Your task to perform on an android device: install app "Venmo" Image 0: 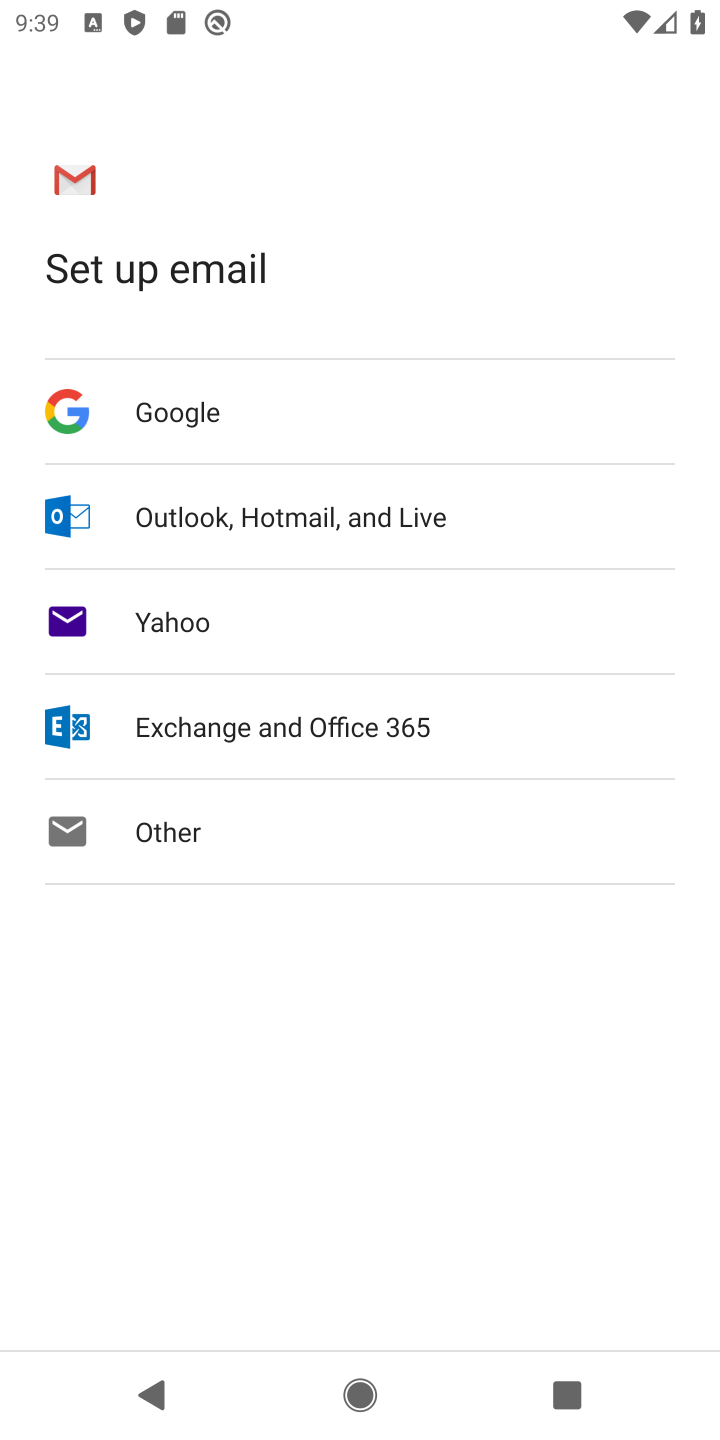
Step 0: press home button
Your task to perform on an android device: install app "Venmo" Image 1: 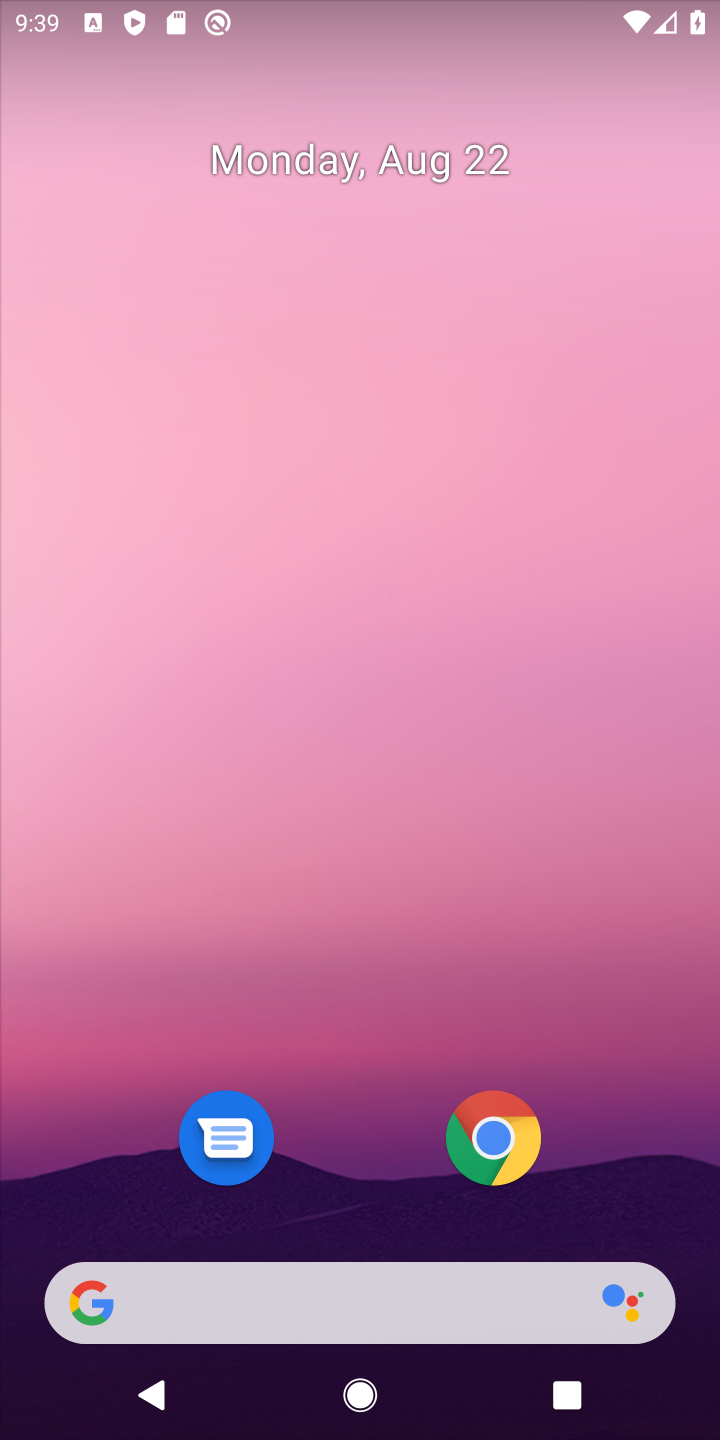
Step 1: drag from (345, 935) to (384, 249)
Your task to perform on an android device: install app "Venmo" Image 2: 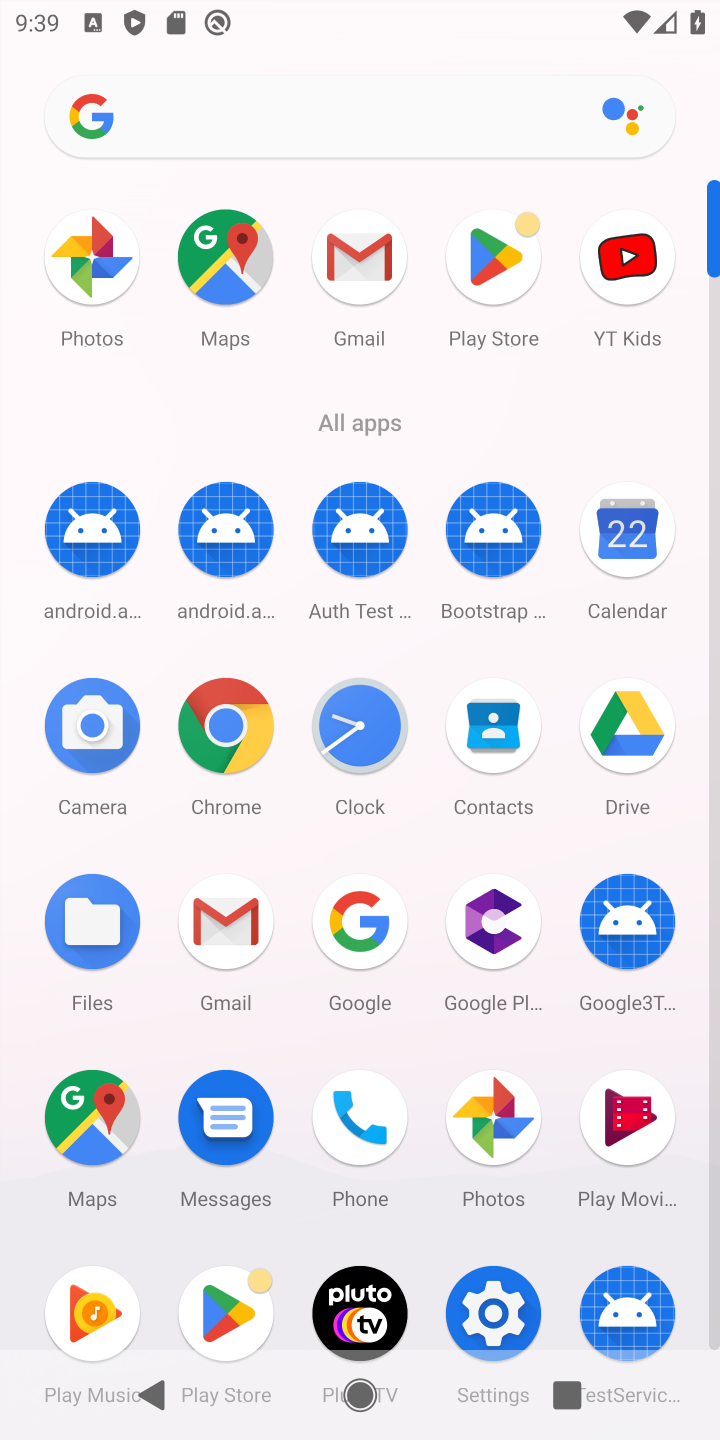
Step 2: click (536, 243)
Your task to perform on an android device: install app "Venmo" Image 3: 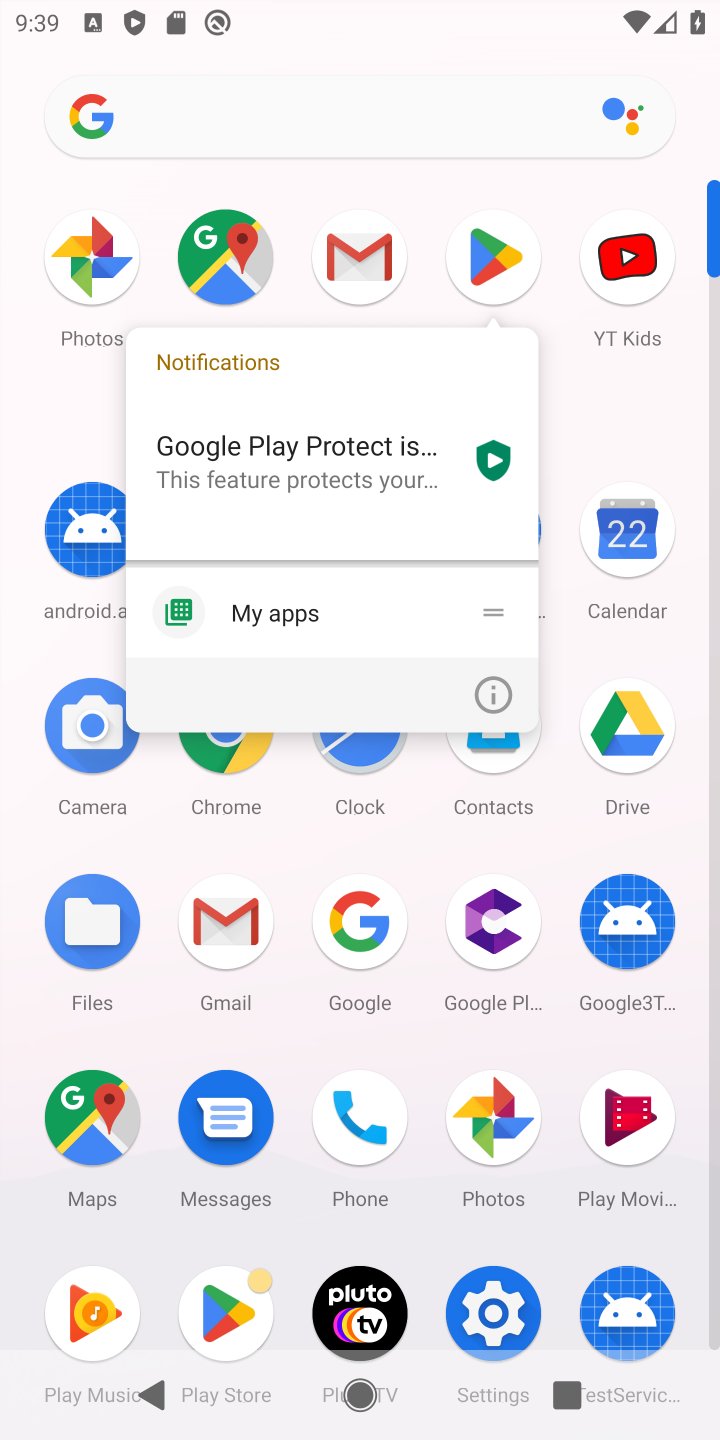
Step 3: click (490, 241)
Your task to perform on an android device: install app "Venmo" Image 4: 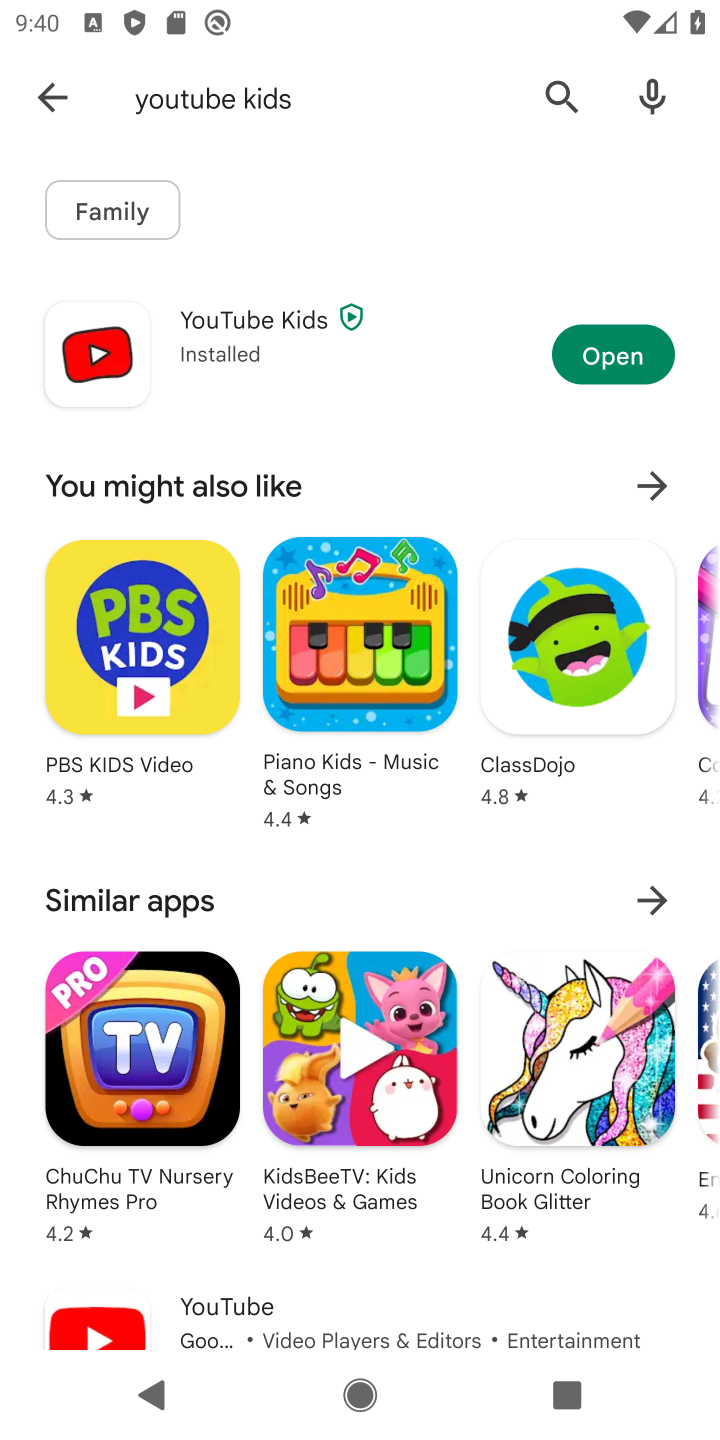
Step 4: click (576, 99)
Your task to perform on an android device: install app "Venmo" Image 5: 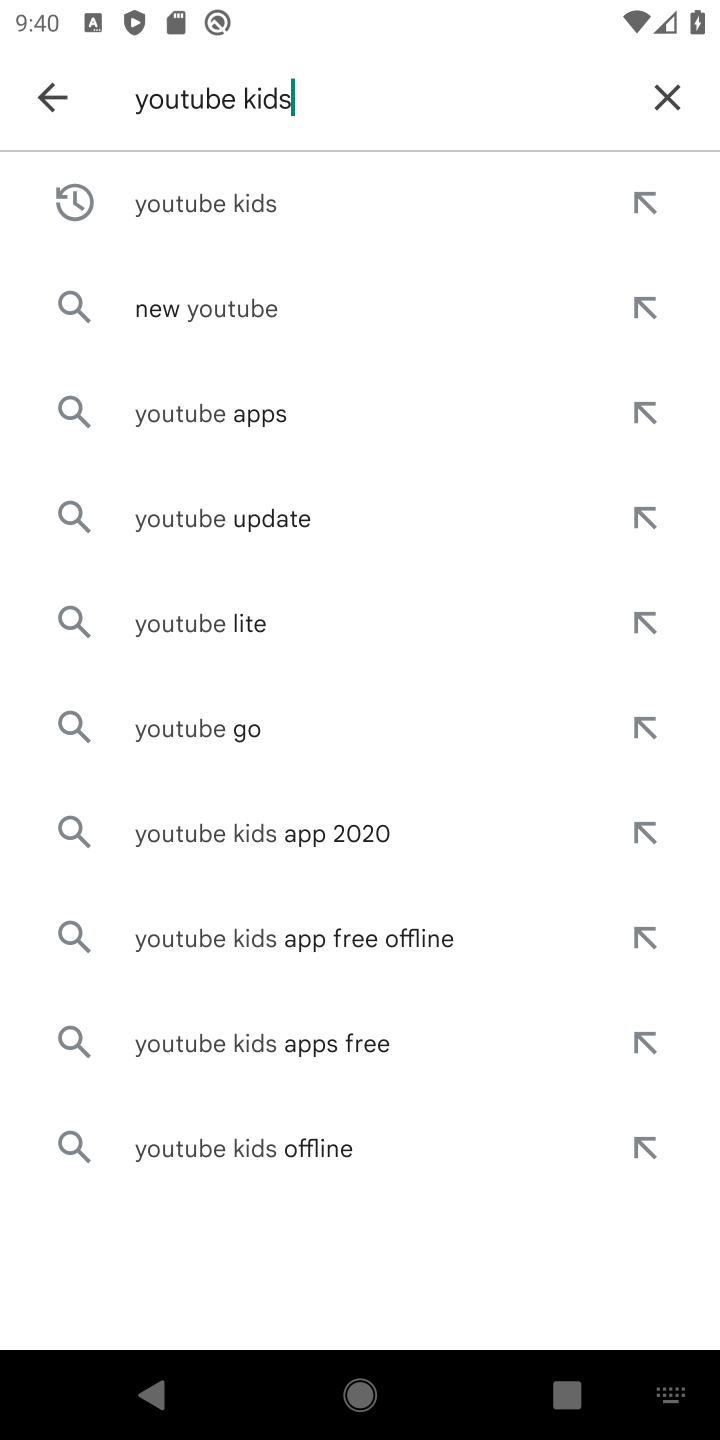
Step 5: click (654, 106)
Your task to perform on an android device: install app "Venmo" Image 6: 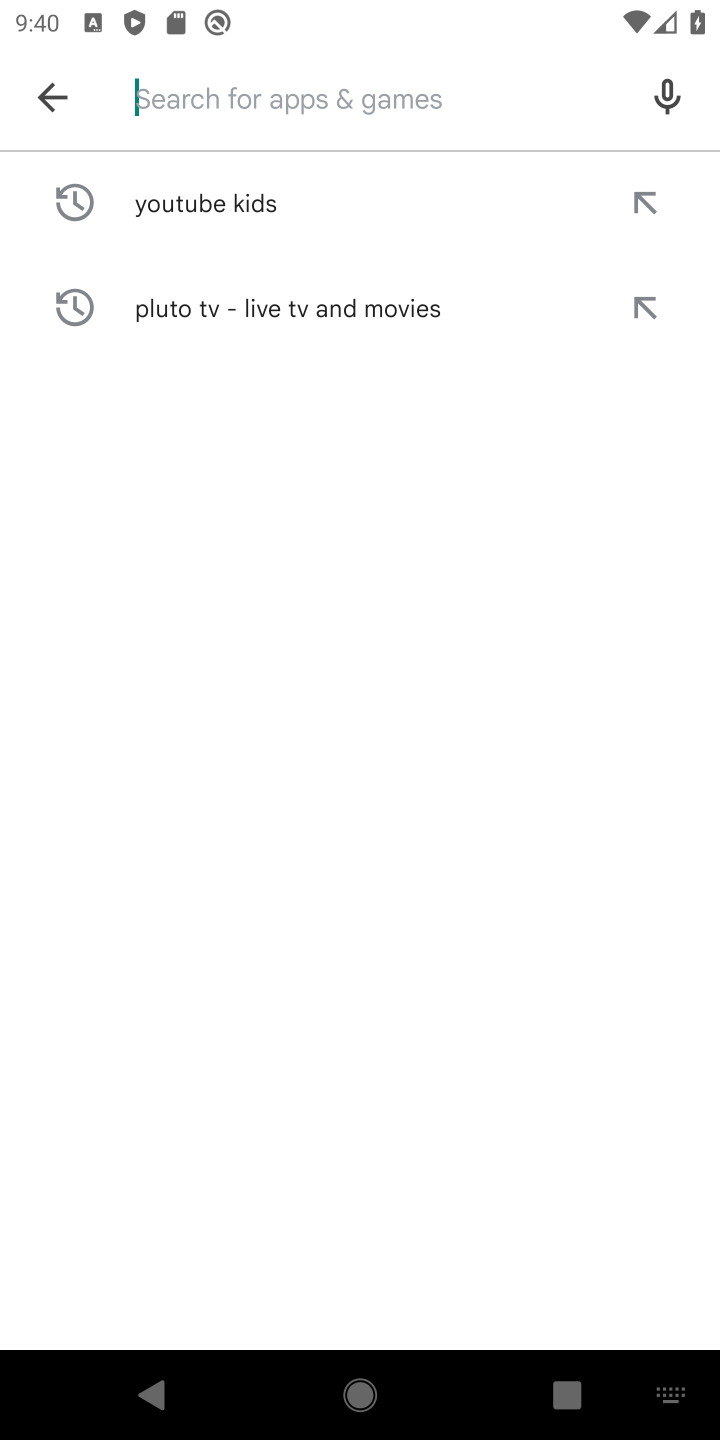
Step 6: type "Venmo"
Your task to perform on an android device: install app "Venmo" Image 7: 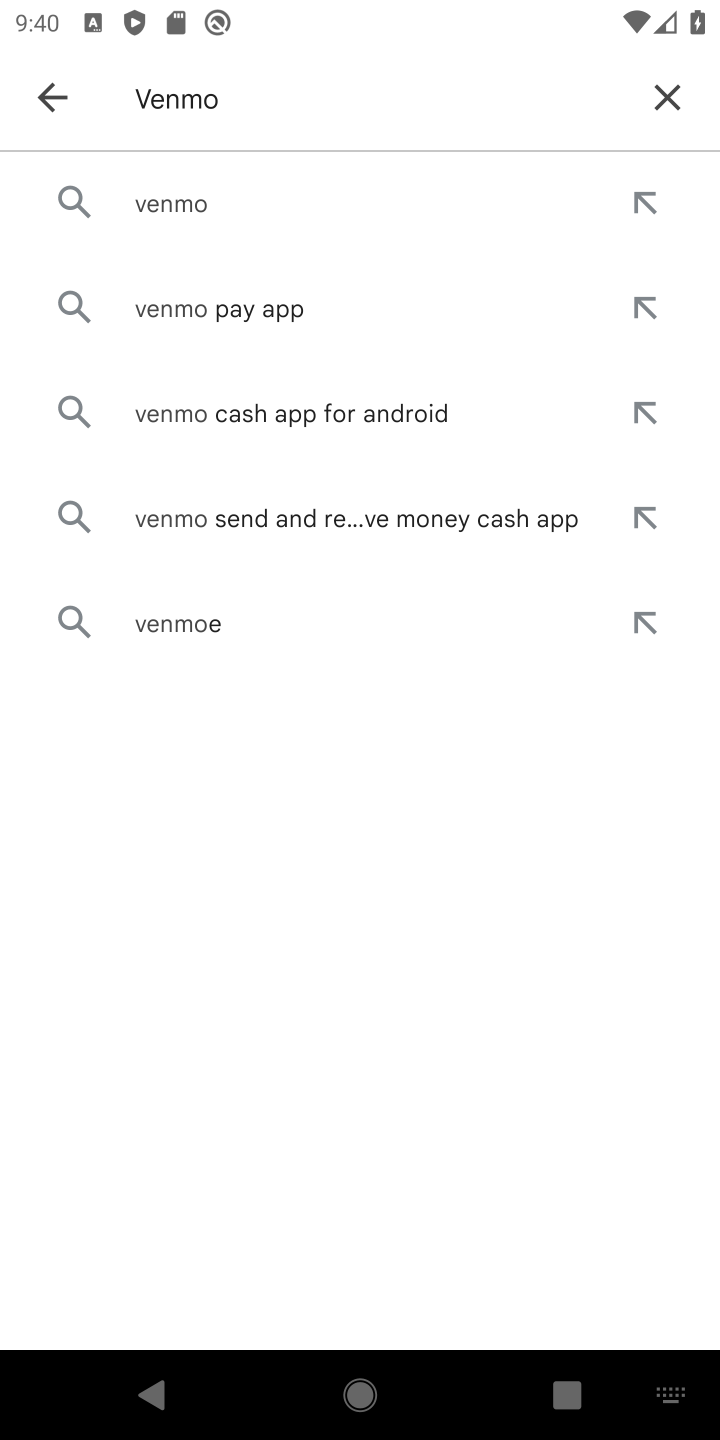
Step 7: click (245, 195)
Your task to perform on an android device: install app "Venmo" Image 8: 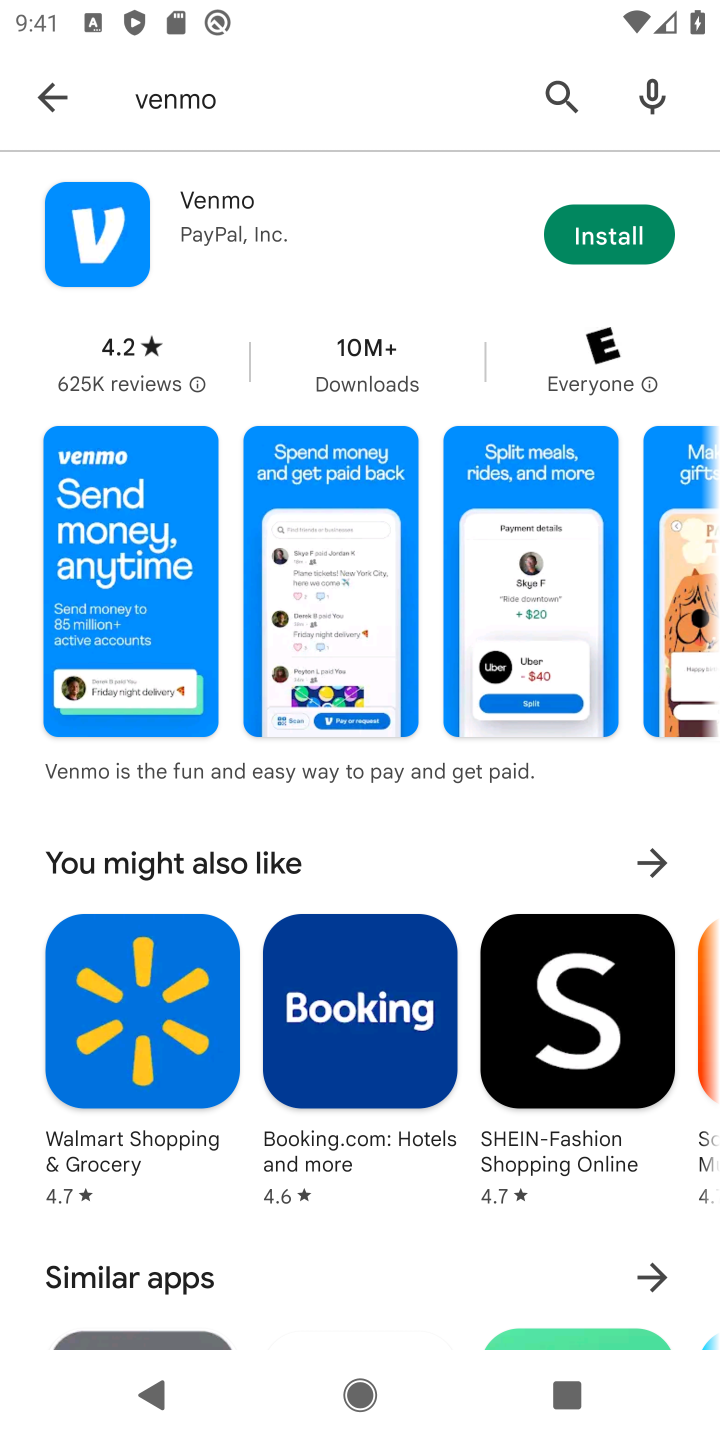
Step 8: click (601, 225)
Your task to perform on an android device: install app "Venmo" Image 9: 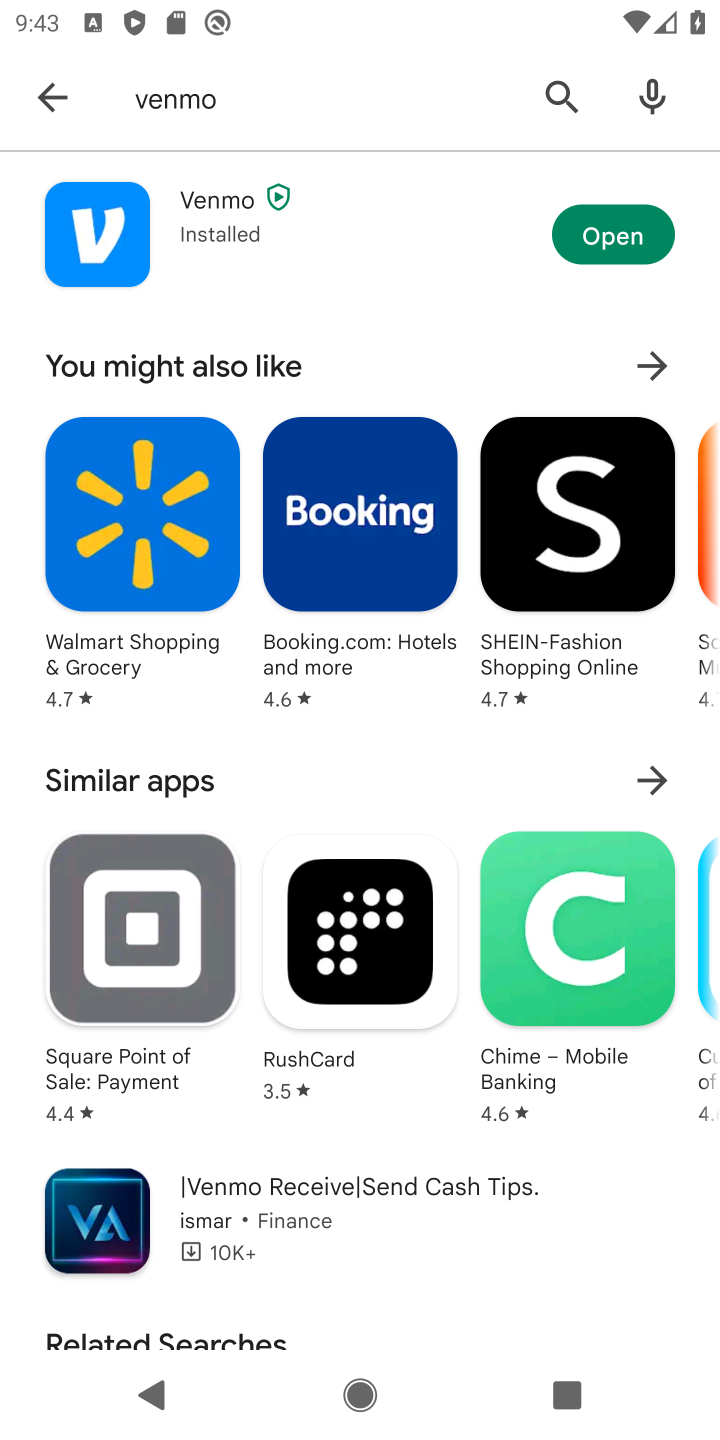
Step 9: click (610, 252)
Your task to perform on an android device: install app "Venmo" Image 10: 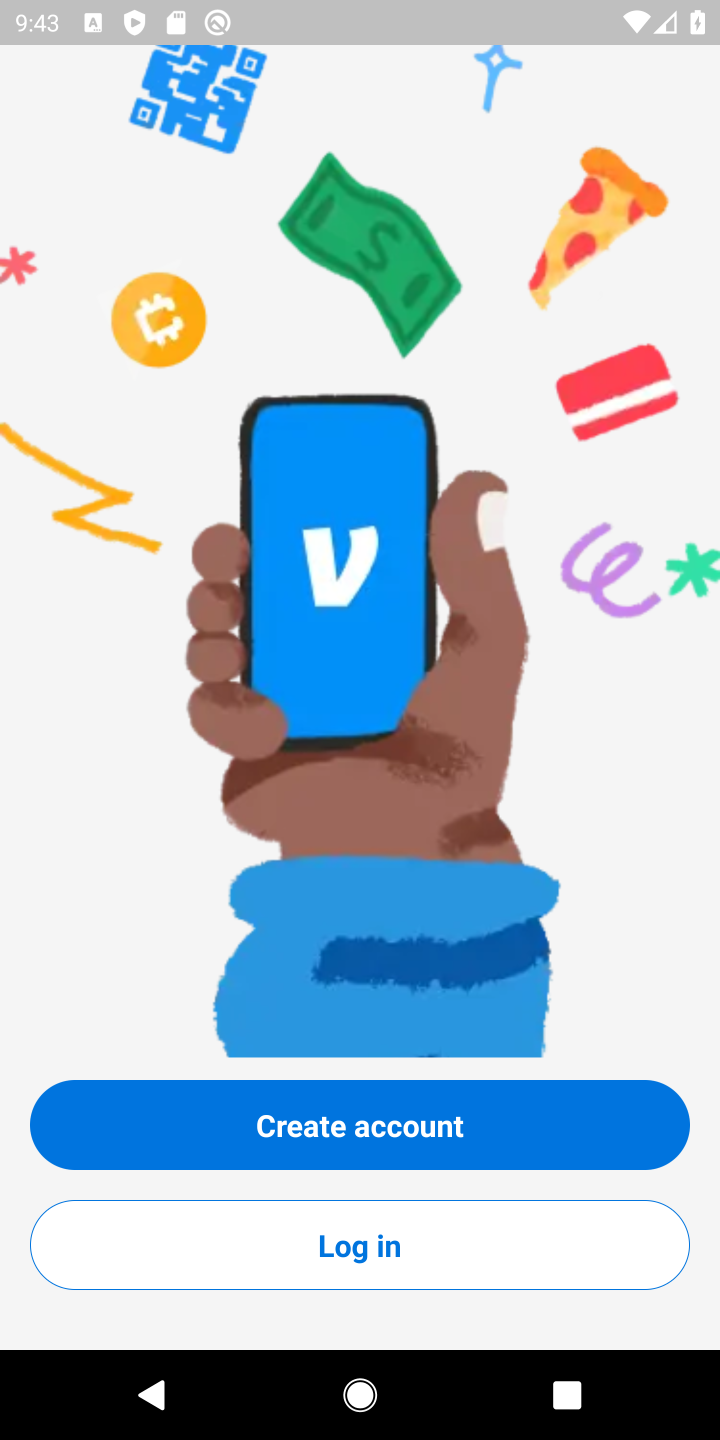
Step 10: task complete